Your task to perform on an android device: all mails in gmail Image 0: 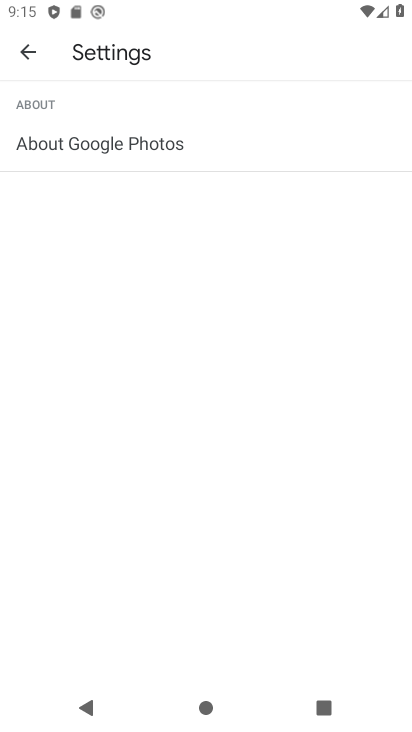
Step 0: press home button
Your task to perform on an android device: all mails in gmail Image 1: 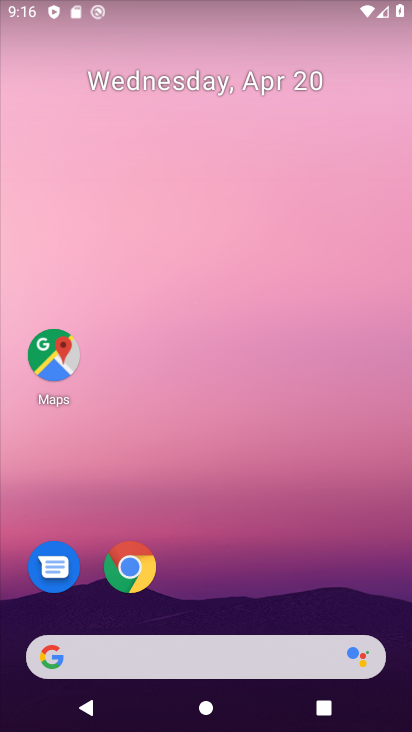
Step 1: drag from (359, 569) to (380, 235)
Your task to perform on an android device: all mails in gmail Image 2: 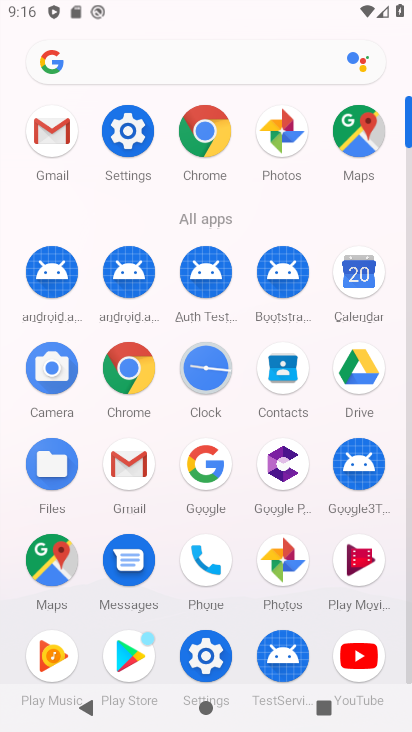
Step 2: click (138, 477)
Your task to perform on an android device: all mails in gmail Image 3: 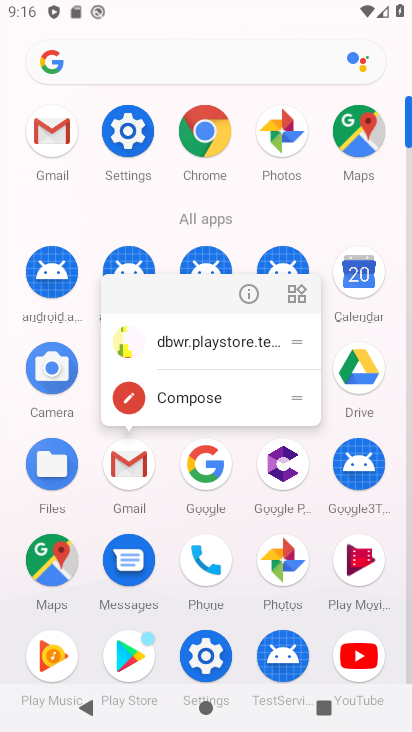
Step 3: click (138, 477)
Your task to perform on an android device: all mails in gmail Image 4: 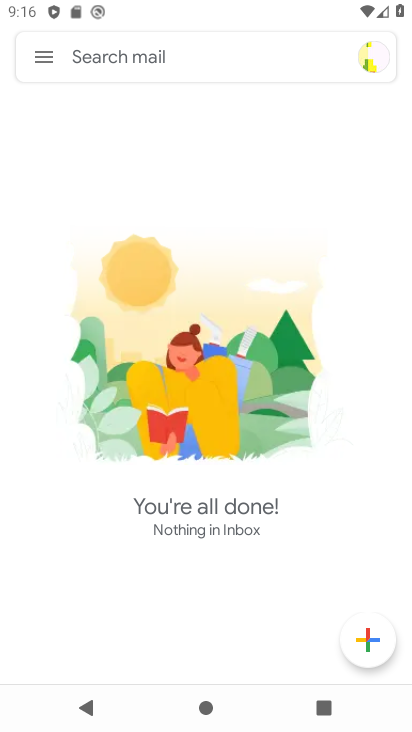
Step 4: click (52, 60)
Your task to perform on an android device: all mails in gmail Image 5: 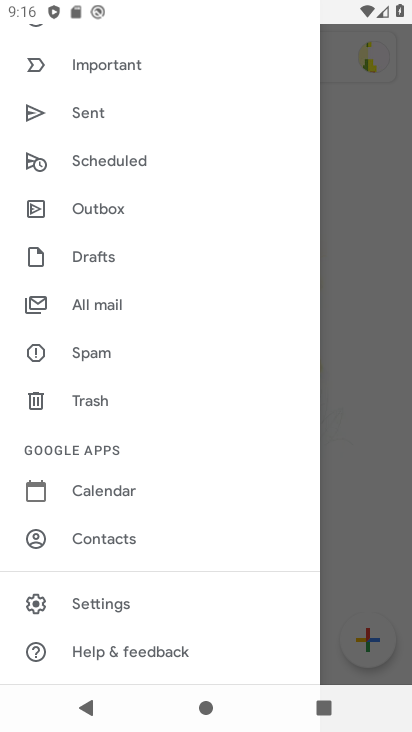
Step 5: drag from (242, 228) to (243, 381)
Your task to perform on an android device: all mails in gmail Image 6: 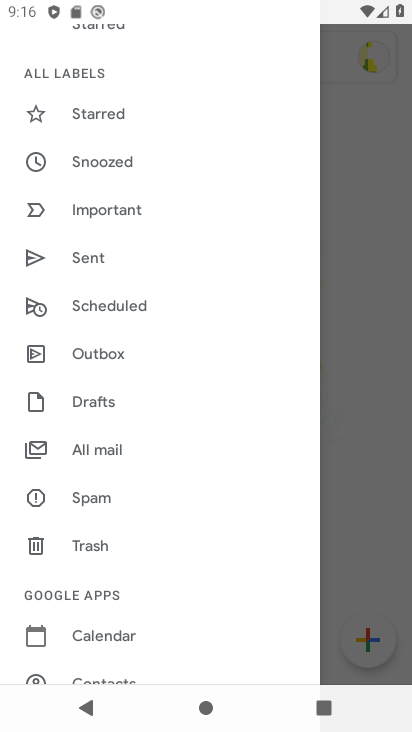
Step 6: drag from (258, 203) to (235, 403)
Your task to perform on an android device: all mails in gmail Image 7: 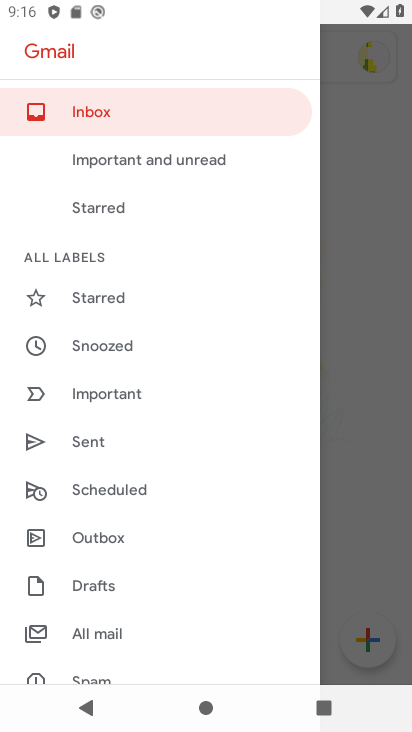
Step 7: drag from (260, 194) to (238, 433)
Your task to perform on an android device: all mails in gmail Image 8: 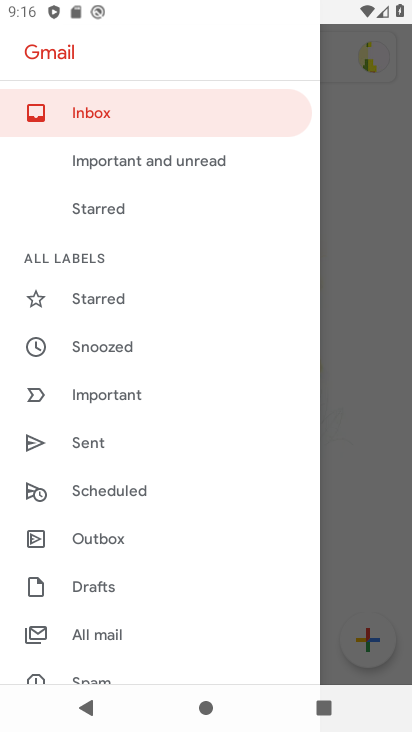
Step 8: drag from (237, 510) to (257, 347)
Your task to perform on an android device: all mails in gmail Image 9: 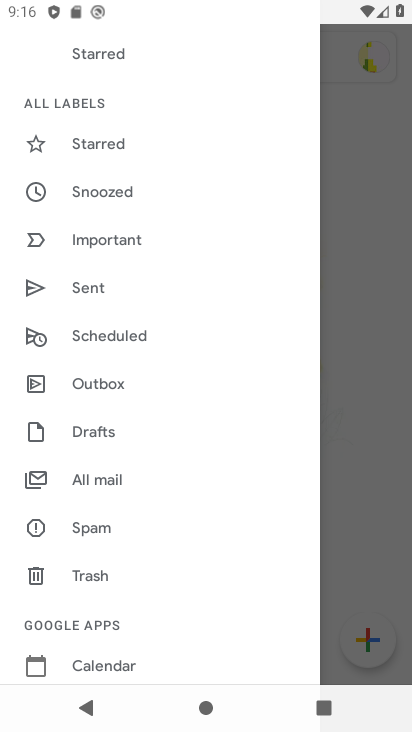
Step 9: drag from (218, 510) to (256, 239)
Your task to perform on an android device: all mails in gmail Image 10: 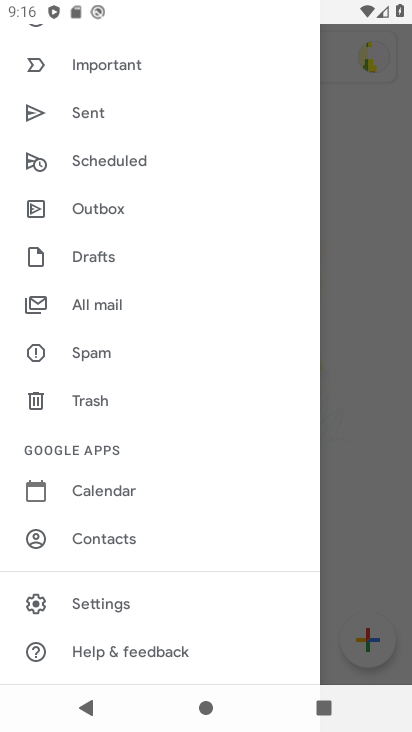
Step 10: click (131, 299)
Your task to perform on an android device: all mails in gmail Image 11: 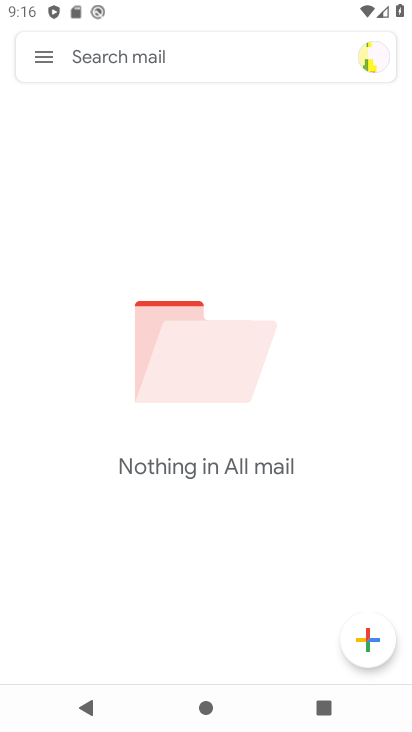
Step 11: task complete